Your task to perform on an android device: Open the web browser Image 0: 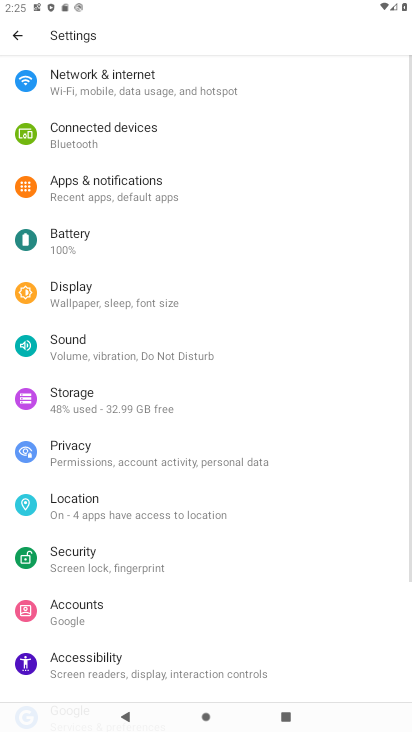
Step 0: press home button
Your task to perform on an android device: Open the web browser Image 1: 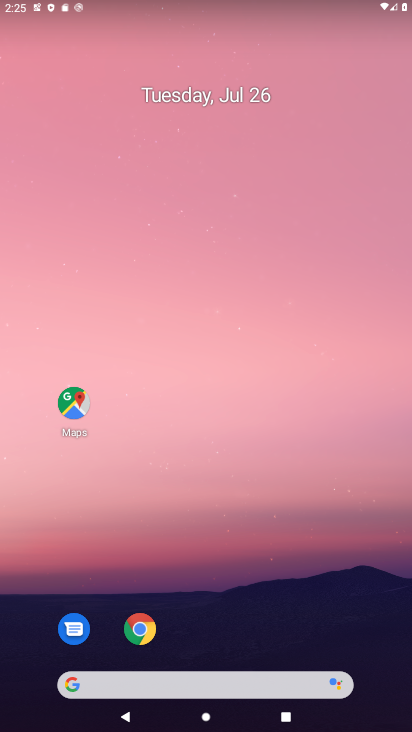
Step 1: click (154, 635)
Your task to perform on an android device: Open the web browser Image 2: 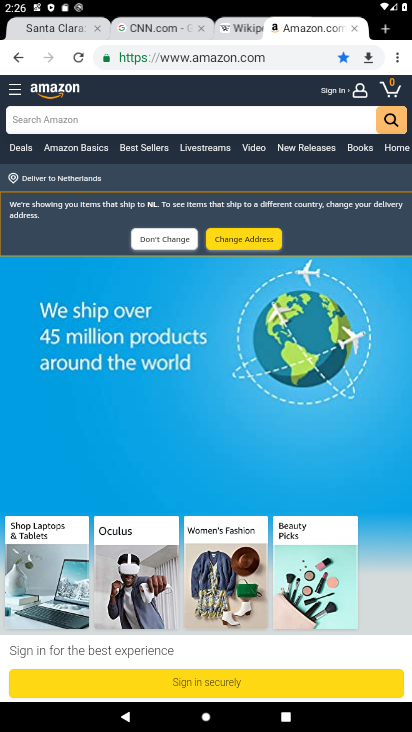
Step 2: task complete